Your task to perform on an android device: Show me recent news Image 0: 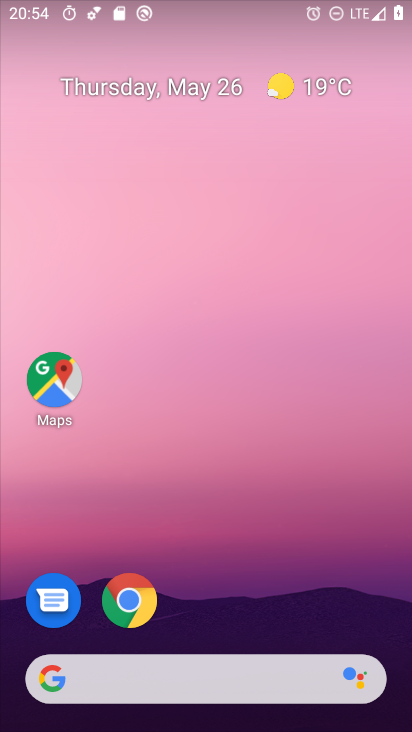
Step 0: press home button
Your task to perform on an android device: Show me recent news Image 1: 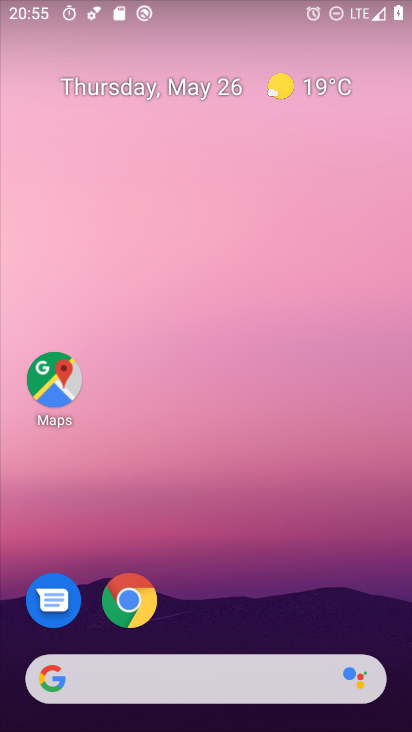
Step 1: click (57, 685)
Your task to perform on an android device: Show me recent news Image 2: 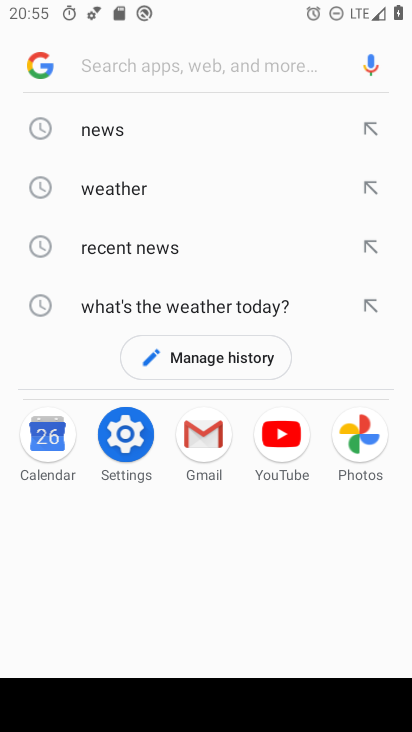
Step 2: click (132, 244)
Your task to perform on an android device: Show me recent news Image 3: 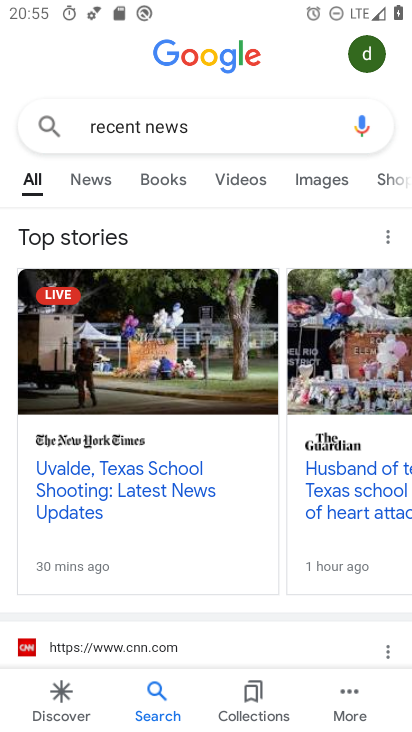
Step 3: task complete